Your task to perform on an android device: turn notification dots on Image 0: 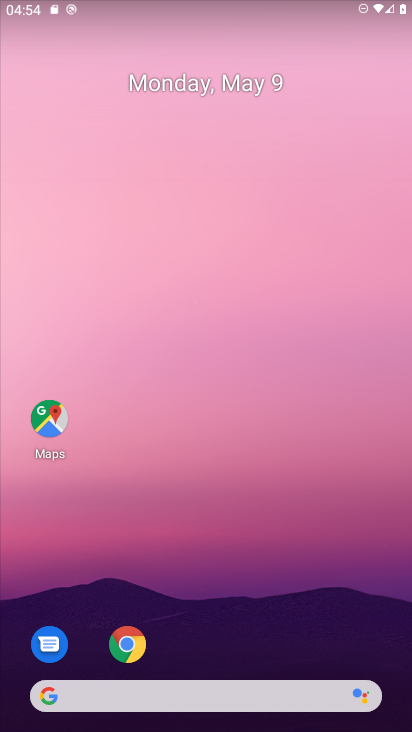
Step 0: drag from (232, 553) to (223, 87)
Your task to perform on an android device: turn notification dots on Image 1: 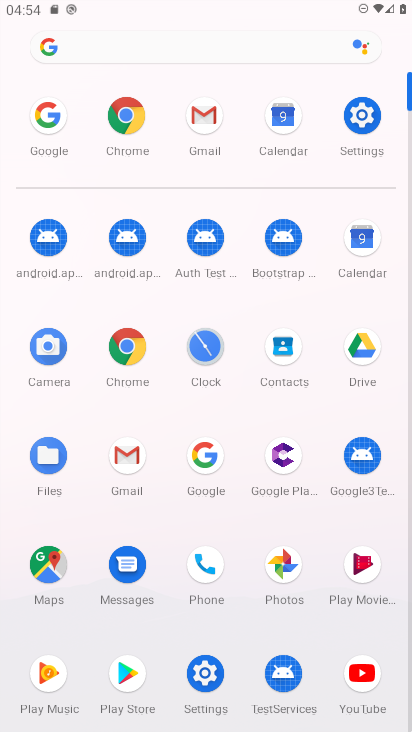
Step 1: click (362, 114)
Your task to perform on an android device: turn notification dots on Image 2: 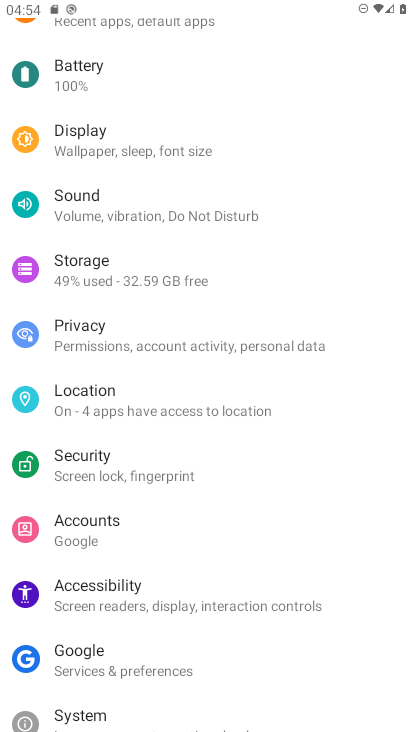
Step 2: drag from (149, 121) to (181, 294)
Your task to perform on an android device: turn notification dots on Image 3: 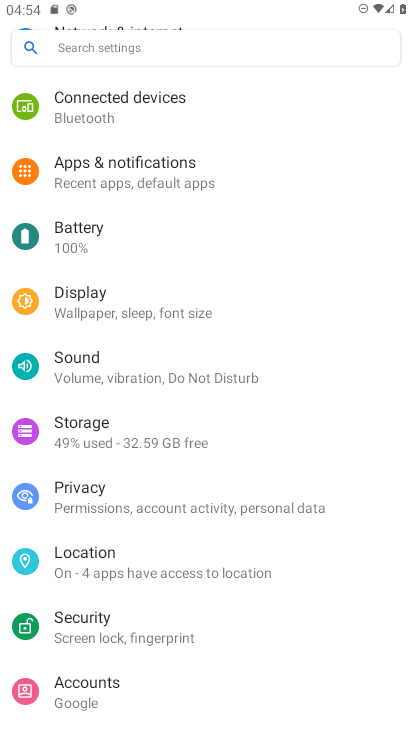
Step 3: click (137, 157)
Your task to perform on an android device: turn notification dots on Image 4: 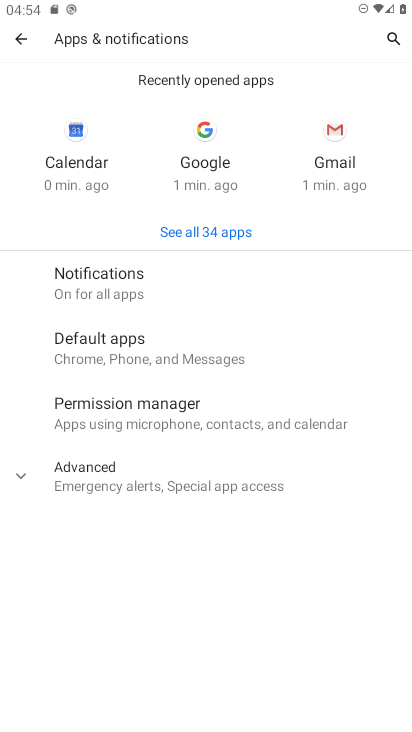
Step 4: click (127, 283)
Your task to perform on an android device: turn notification dots on Image 5: 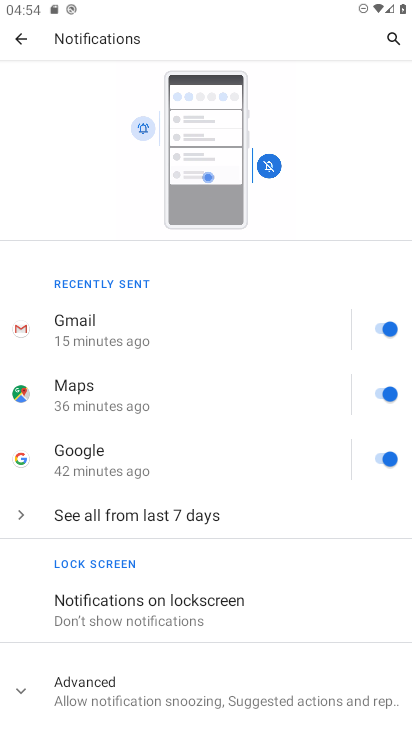
Step 5: drag from (170, 578) to (196, 394)
Your task to perform on an android device: turn notification dots on Image 6: 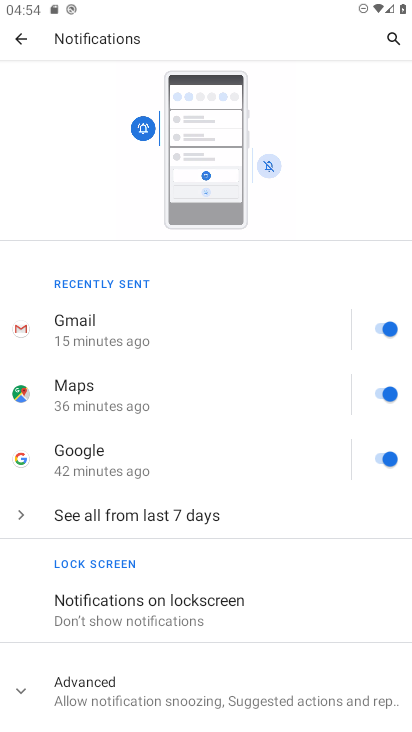
Step 6: click (150, 702)
Your task to perform on an android device: turn notification dots on Image 7: 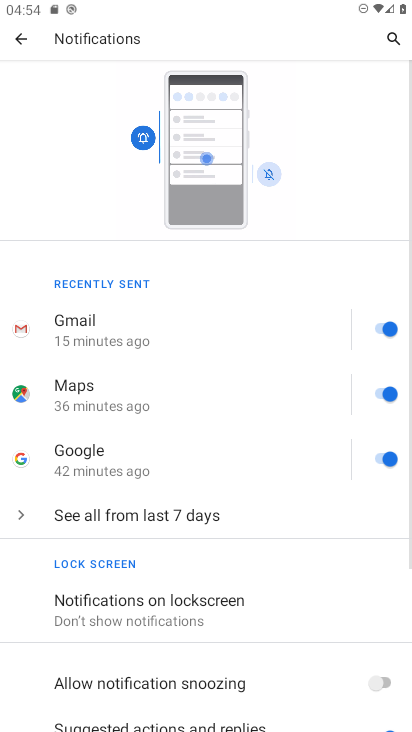
Step 7: task complete